Your task to perform on an android device: turn off location history Image 0: 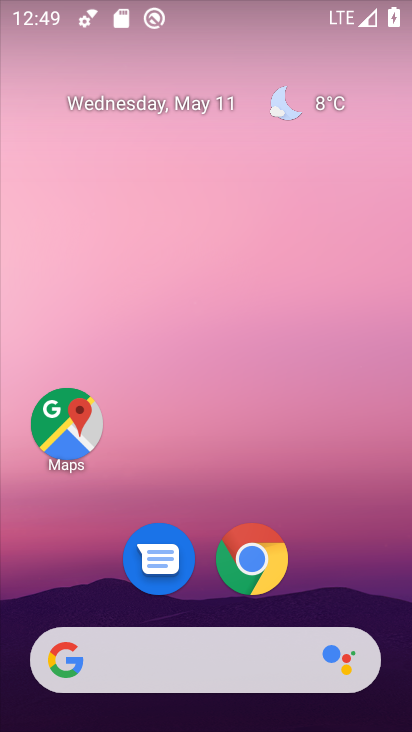
Step 0: drag from (210, 724) to (204, 256)
Your task to perform on an android device: turn off location history Image 1: 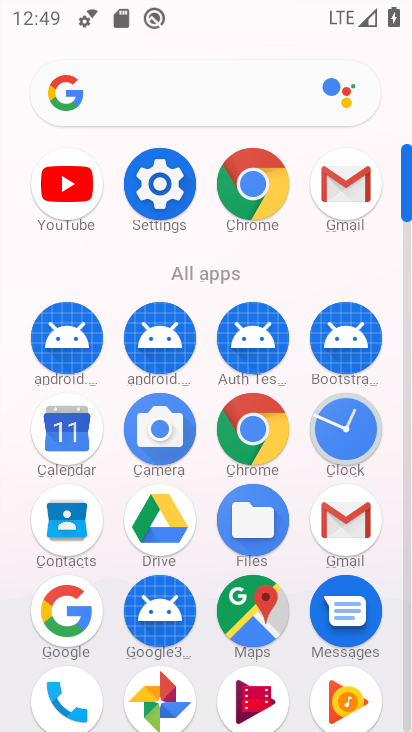
Step 1: click (160, 184)
Your task to perform on an android device: turn off location history Image 2: 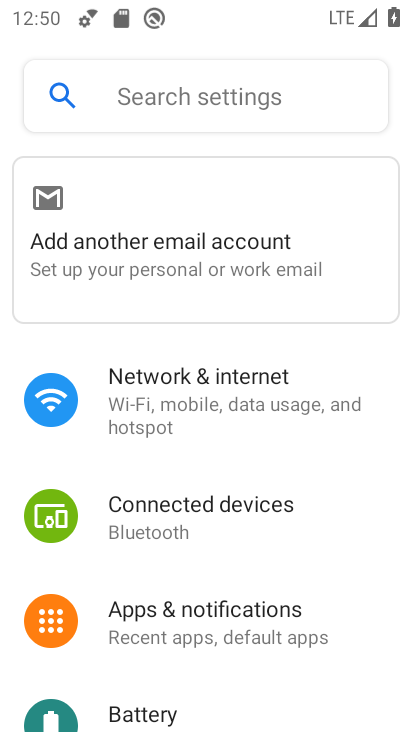
Step 2: drag from (186, 670) to (209, 233)
Your task to perform on an android device: turn off location history Image 3: 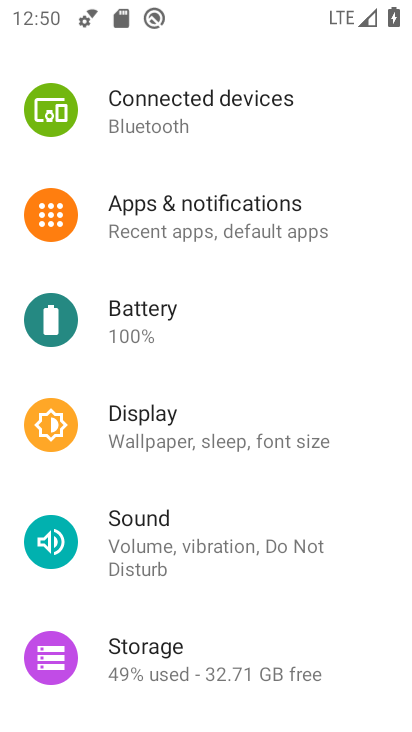
Step 3: drag from (191, 632) to (215, 261)
Your task to perform on an android device: turn off location history Image 4: 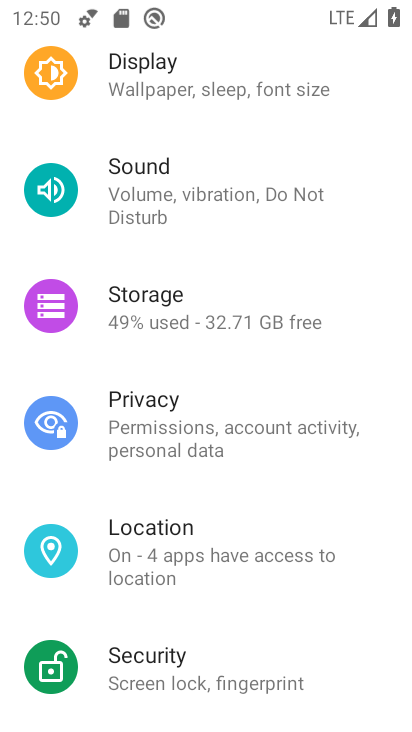
Step 4: click (169, 555)
Your task to perform on an android device: turn off location history Image 5: 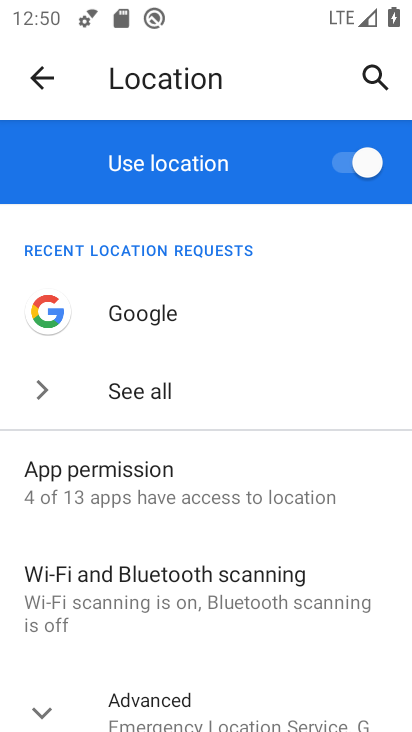
Step 5: drag from (176, 664) to (183, 262)
Your task to perform on an android device: turn off location history Image 6: 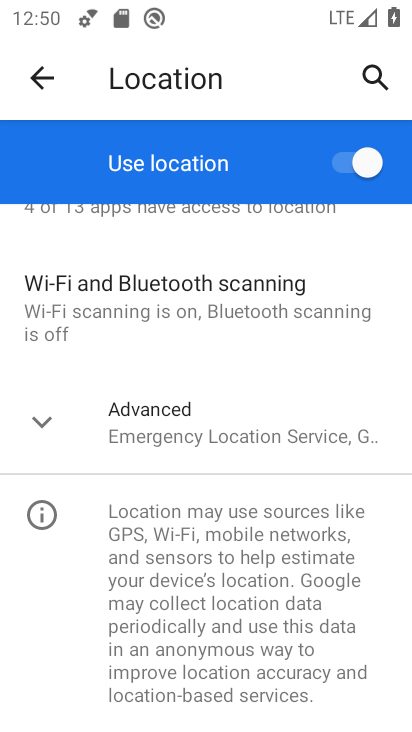
Step 6: click (157, 427)
Your task to perform on an android device: turn off location history Image 7: 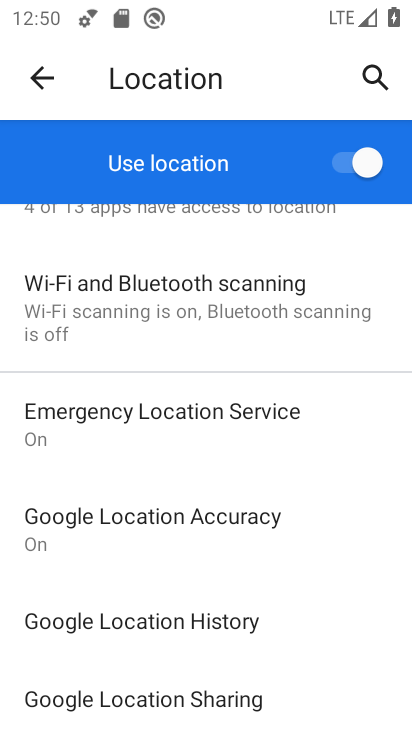
Step 7: click (149, 622)
Your task to perform on an android device: turn off location history Image 8: 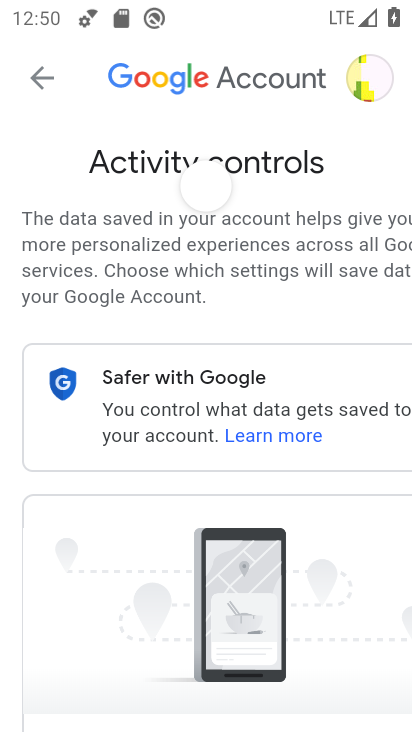
Step 8: task complete